Your task to perform on an android device: What's on my calendar tomorrow? Image 0: 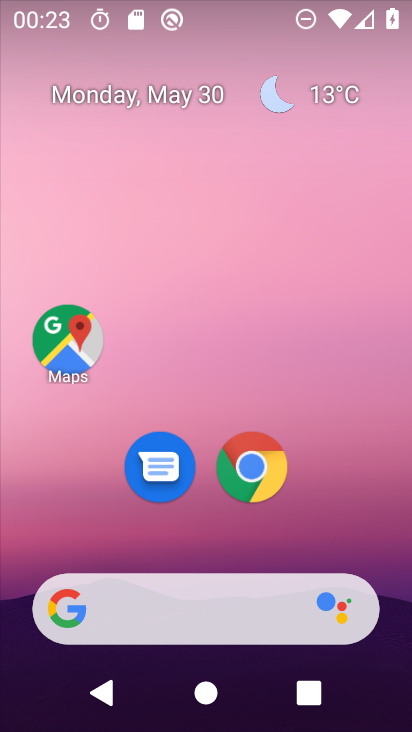
Step 0: drag from (194, 550) to (247, 162)
Your task to perform on an android device: What's on my calendar tomorrow? Image 1: 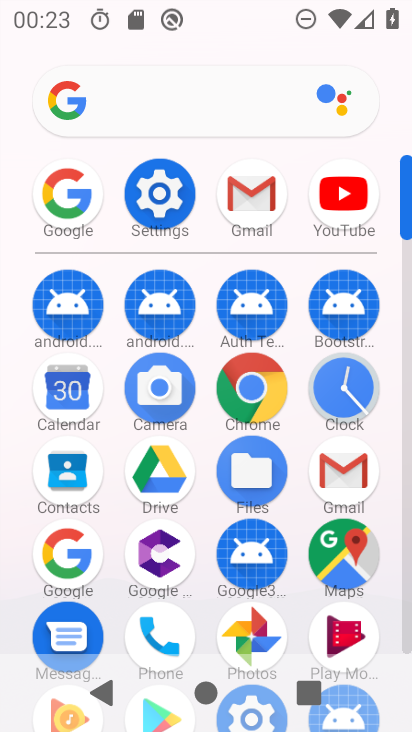
Step 1: click (84, 383)
Your task to perform on an android device: What's on my calendar tomorrow? Image 2: 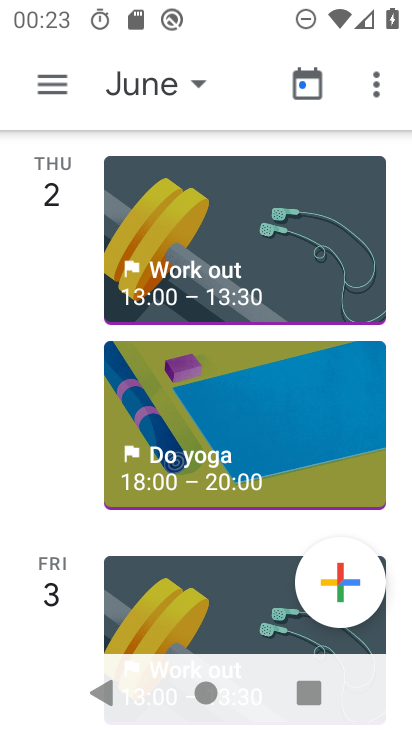
Step 2: click (190, 90)
Your task to perform on an android device: What's on my calendar tomorrow? Image 3: 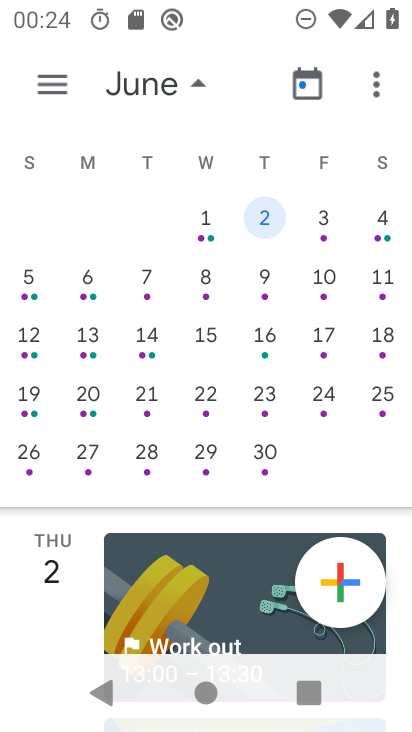
Step 3: drag from (25, 348) to (355, 387)
Your task to perform on an android device: What's on my calendar tomorrow? Image 4: 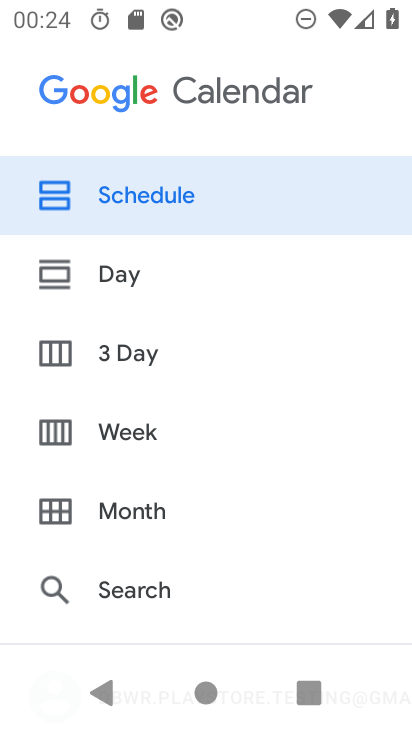
Step 4: press back button
Your task to perform on an android device: What's on my calendar tomorrow? Image 5: 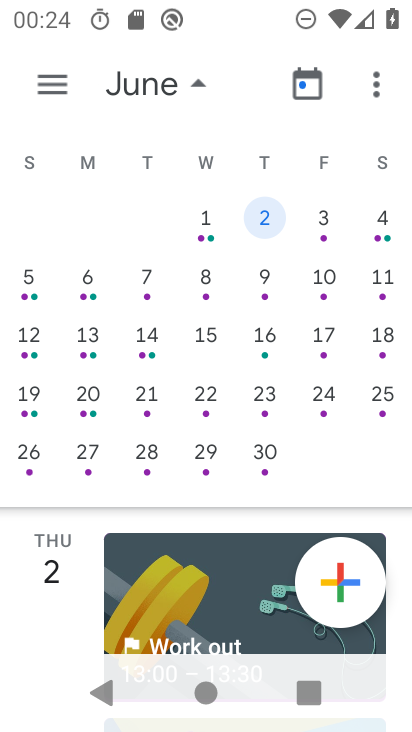
Step 5: drag from (59, 308) to (388, 308)
Your task to perform on an android device: What's on my calendar tomorrow? Image 6: 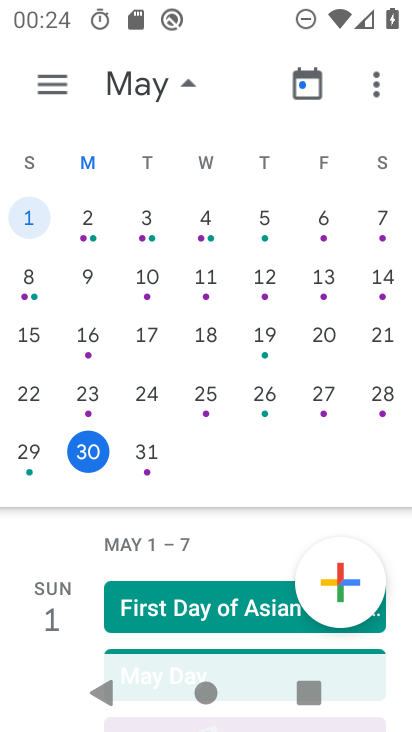
Step 6: click (137, 445)
Your task to perform on an android device: What's on my calendar tomorrow? Image 7: 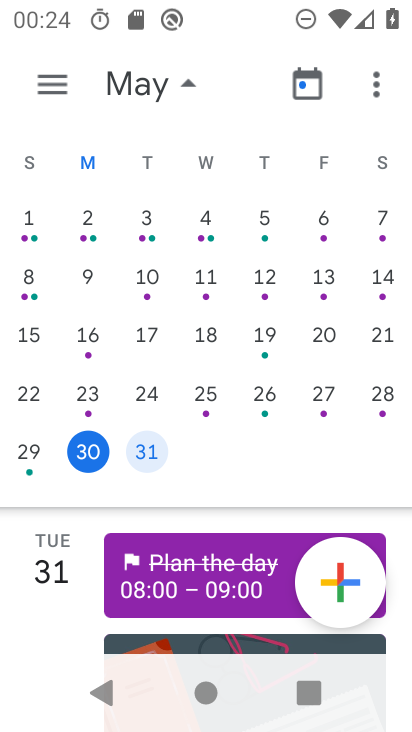
Step 7: task complete